Your task to perform on an android device: delete location history Image 0: 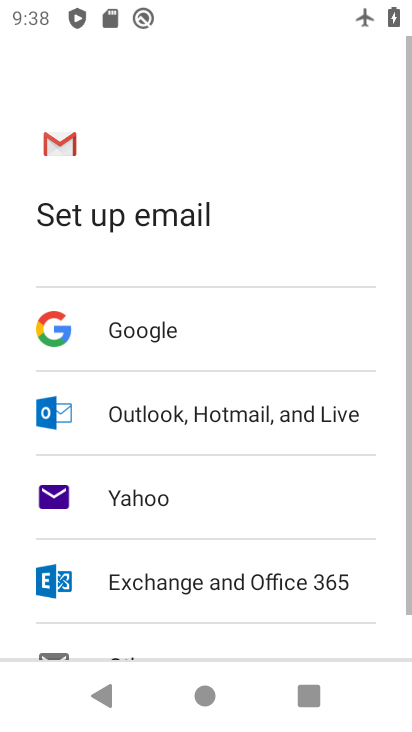
Step 0: press home button
Your task to perform on an android device: delete location history Image 1: 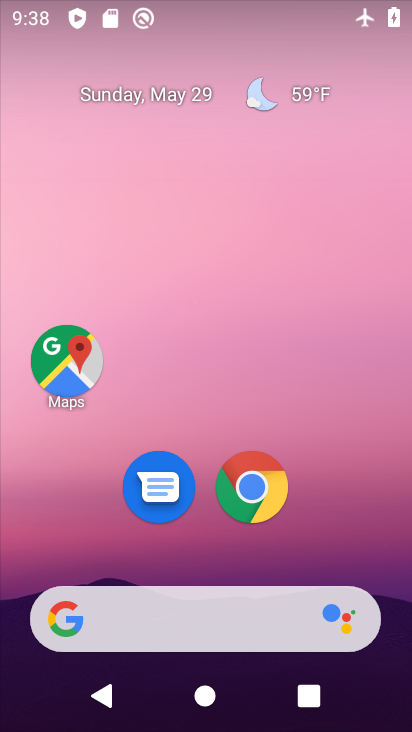
Step 1: click (57, 340)
Your task to perform on an android device: delete location history Image 2: 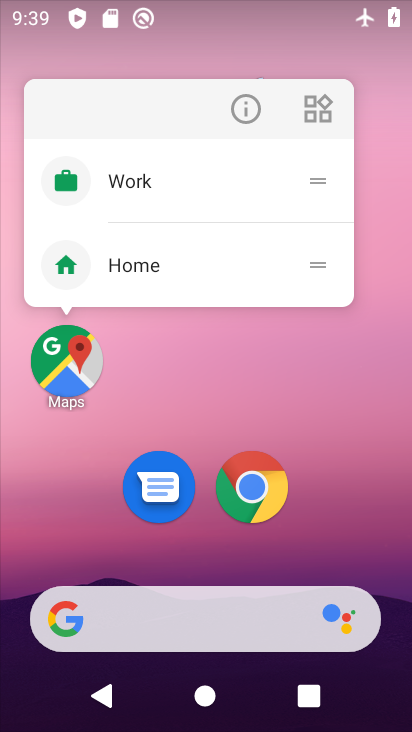
Step 2: click (34, 360)
Your task to perform on an android device: delete location history Image 3: 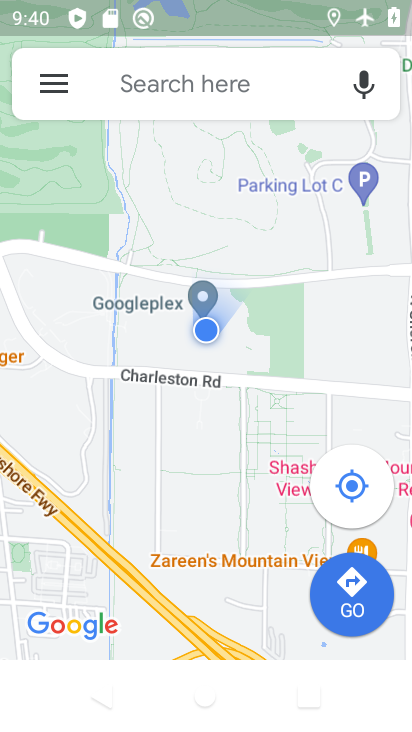
Step 3: click (42, 77)
Your task to perform on an android device: delete location history Image 4: 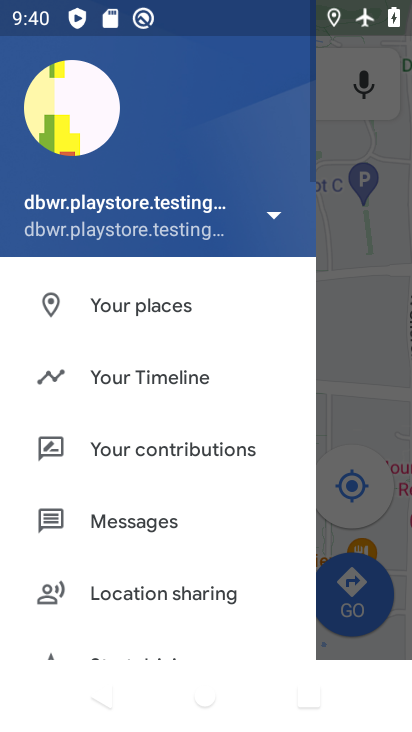
Step 4: click (105, 372)
Your task to perform on an android device: delete location history Image 5: 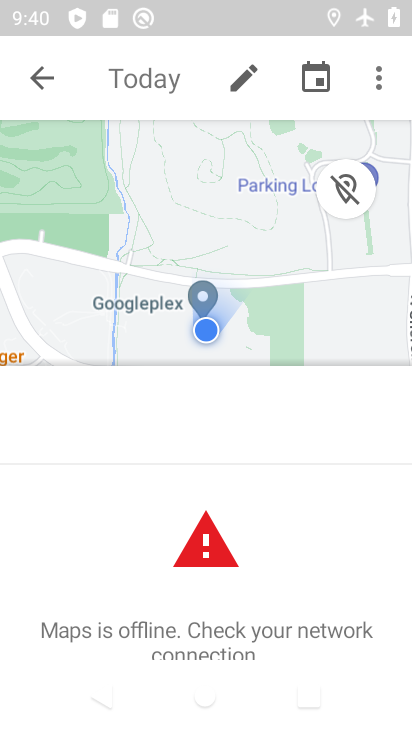
Step 5: task complete